Your task to perform on an android device: uninstall "Google Calendar" Image 0: 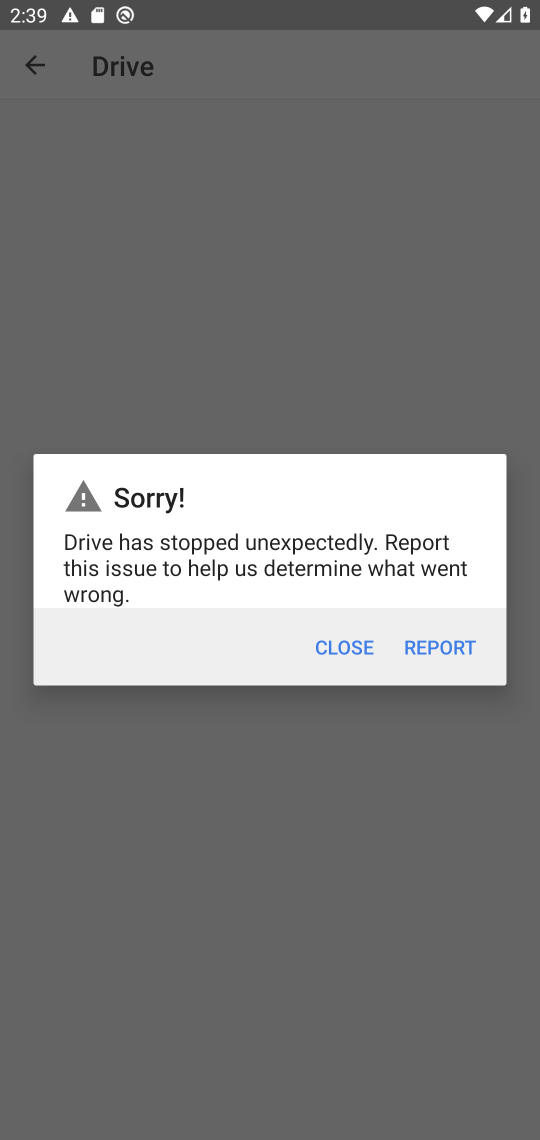
Step 0: press home button
Your task to perform on an android device: uninstall "Google Calendar" Image 1: 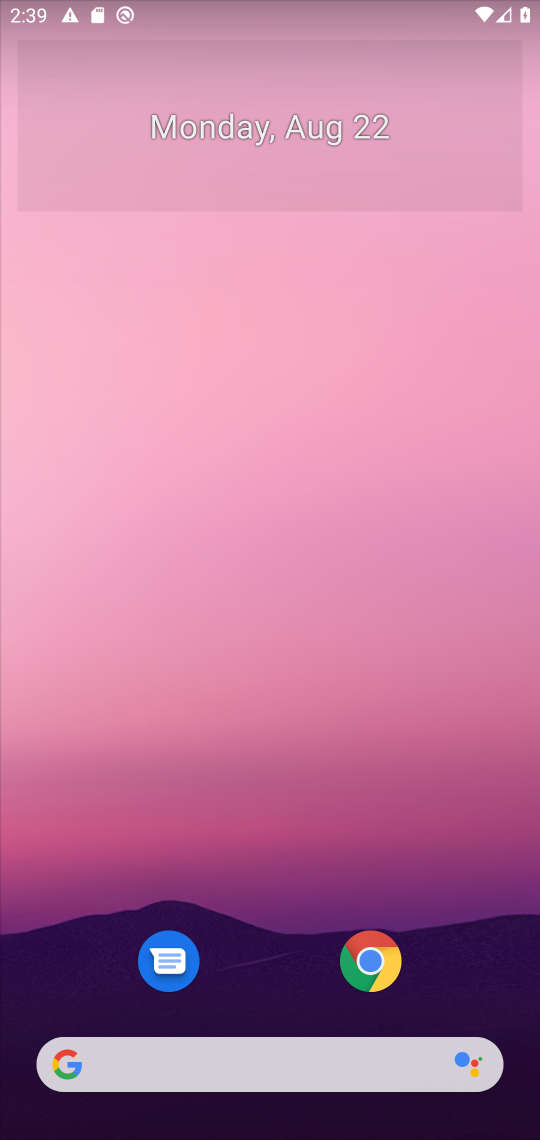
Step 1: drag from (460, 976) to (490, 91)
Your task to perform on an android device: uninstall "Google Calendar" Image 2: 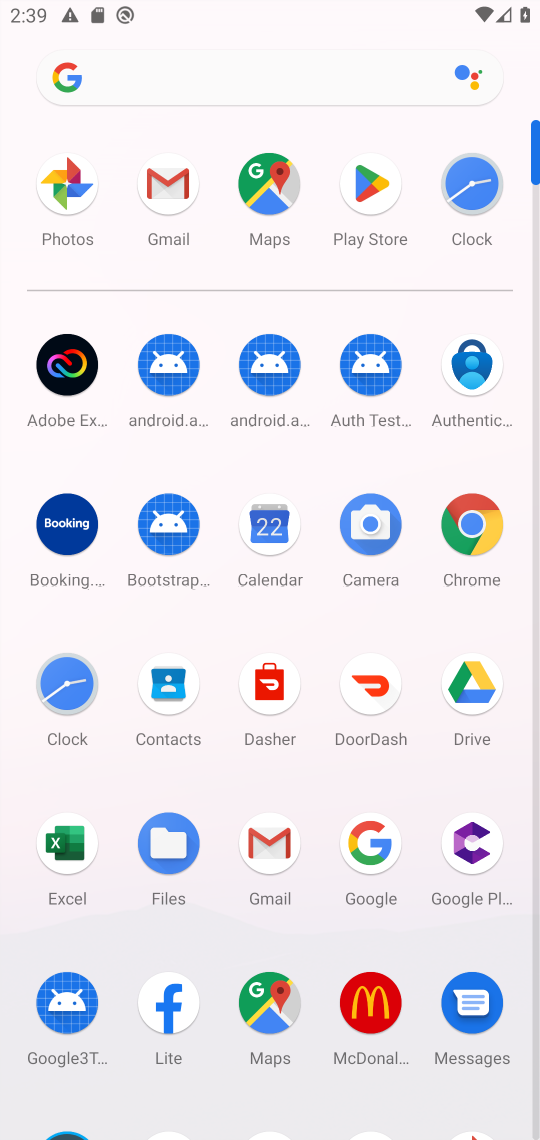
Step 2: click (373, 187)
Your task to perform on an android device: uninstall "Google Calendar" Image 3: 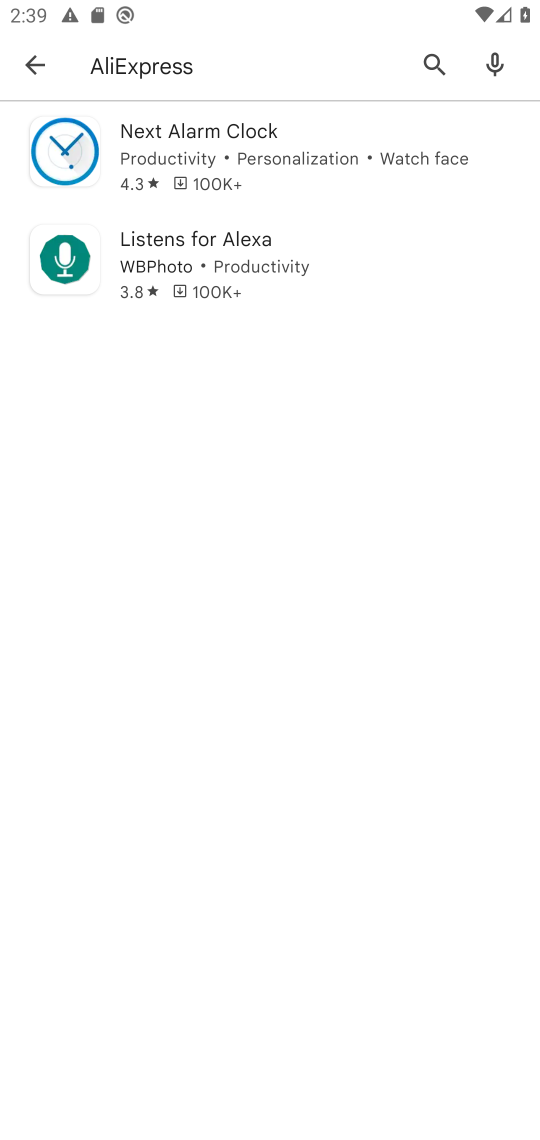
Step 3: press back button
Your task to perform on an android device: uninstall "Google Calendar" Image 4: 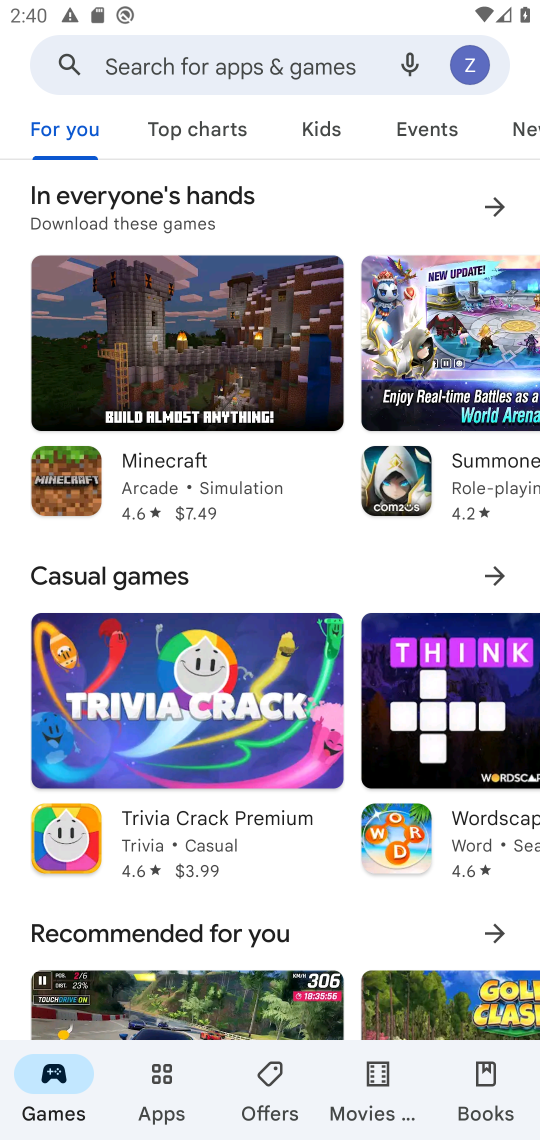
Step 4: click (260, 63)
Your task to perform on an android device: uninstall "Google Calendar" Image 5: 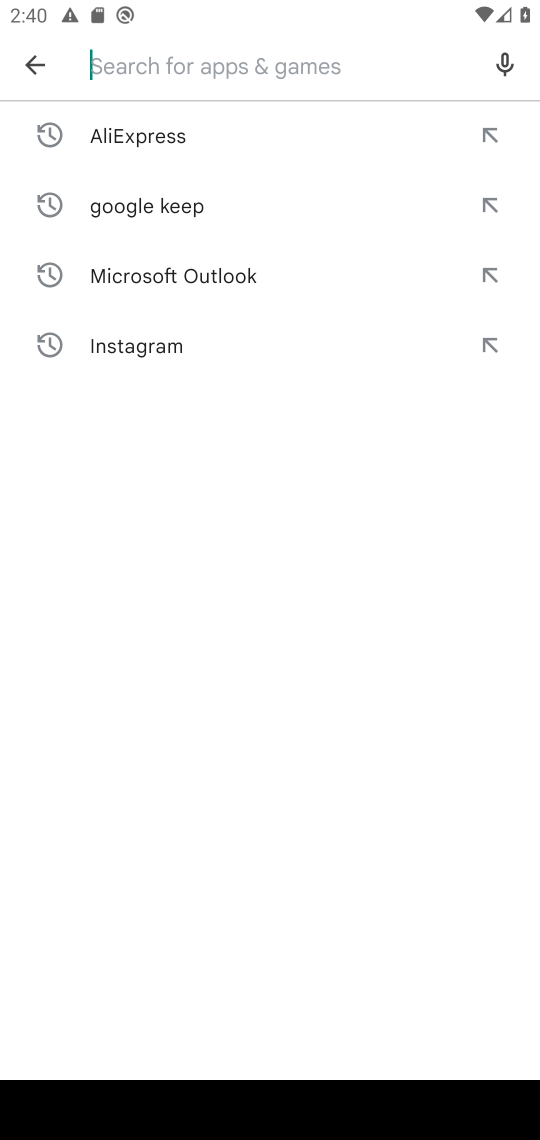
Step 5: type "Google Calendar"
Your task to perform on an android device: uninstall "Google Calendar" Image 6: 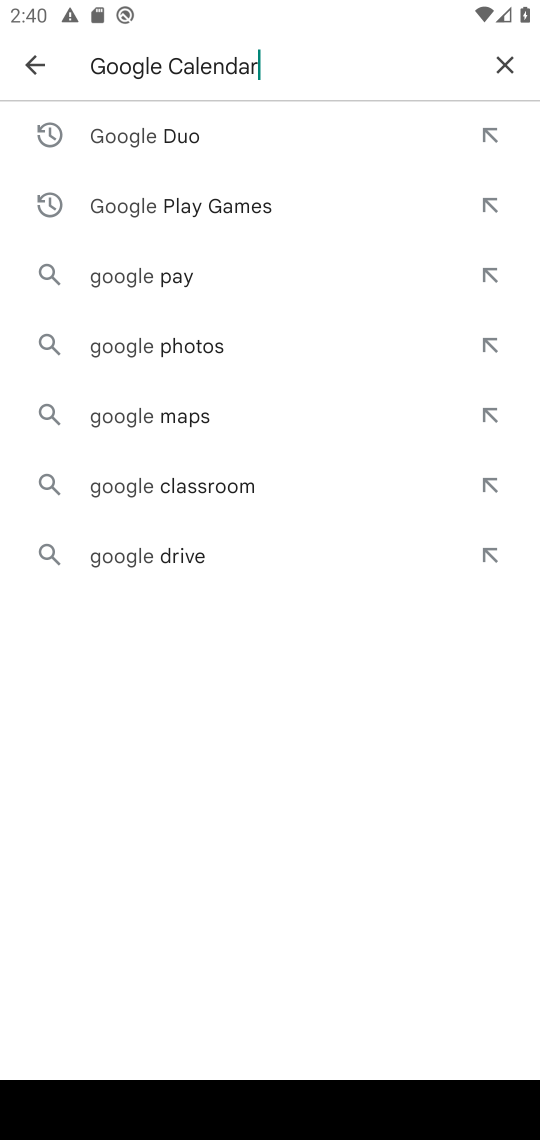
Step 6: press enter
Your task to perform on an android device: uninstall "Google Calendar" Image 7: 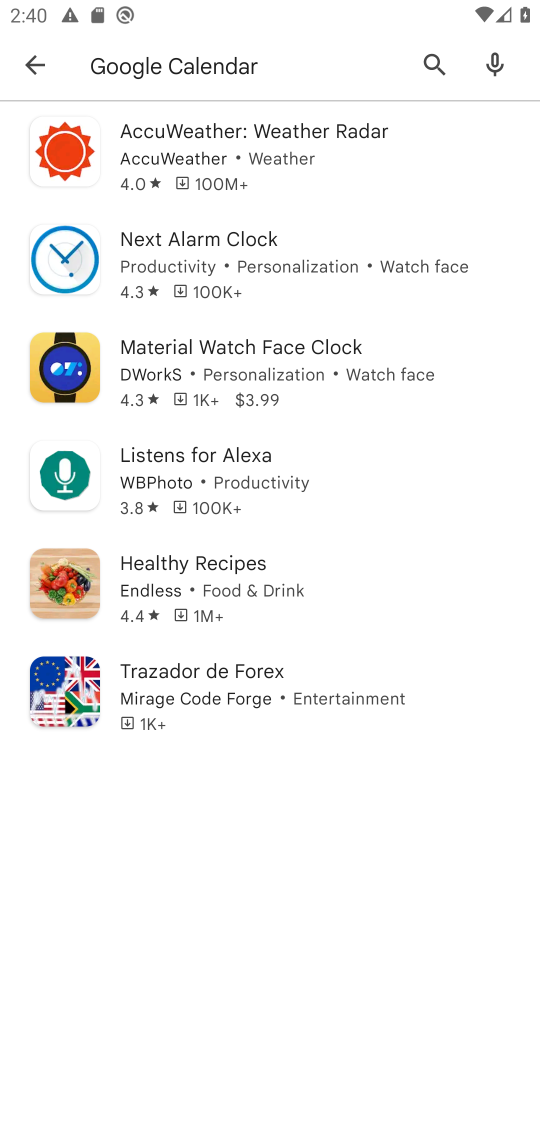
Step 7: task complete